Your task to perform on an android device: set the stopwatch Image 0: 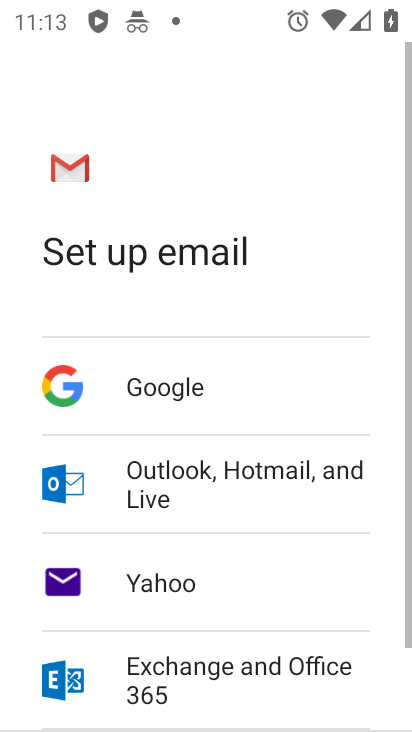
Step 0: press back button
Your task to perform on an android device: set the stopwatch Image 1: 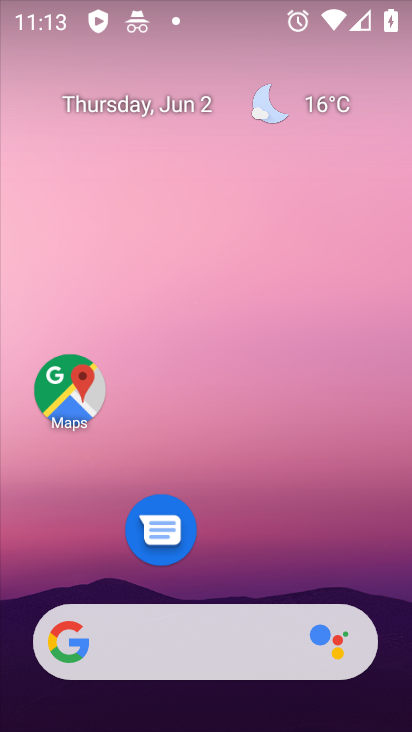
Step 1: drag from (309, 686) to (150, 100)
Your task to perform on an android device: set the stopwatch Image 2: 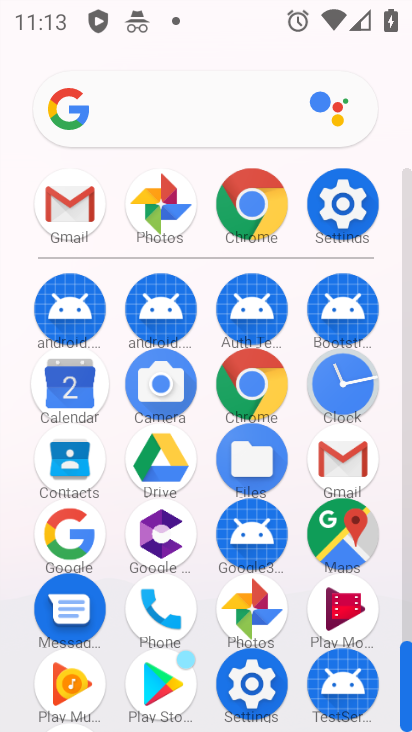
Step 2: click (338, 391)
Your task to perform on an android device: set the stopwatch Image 3: 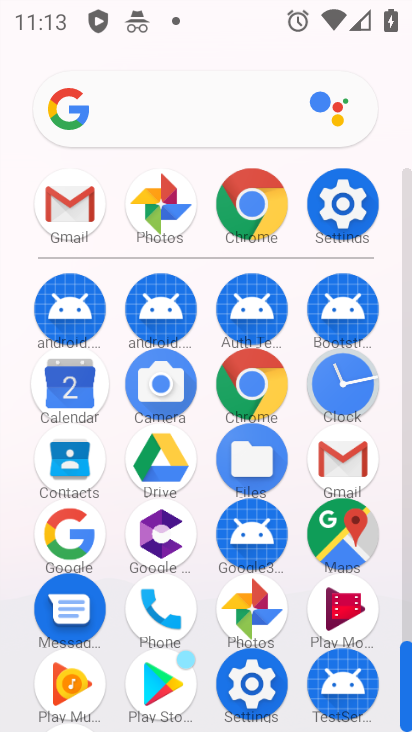
Step 3: click (335, 393)
Your task to perform on an android device: set the stopwatch Image 4: 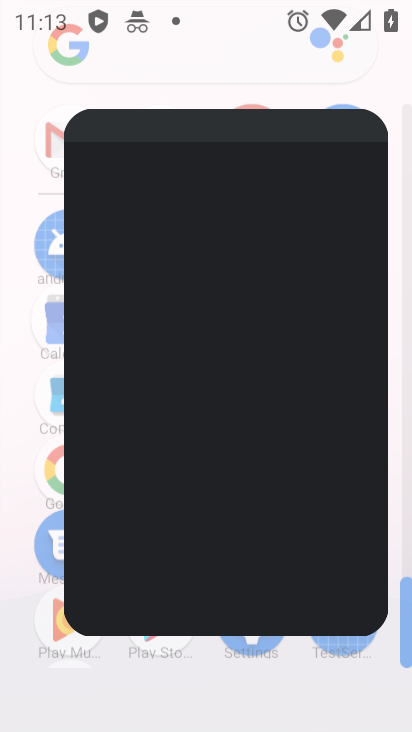
Step 4: click (335, 393)
Your task to perform on an android device: set the stopwatch Image 5: 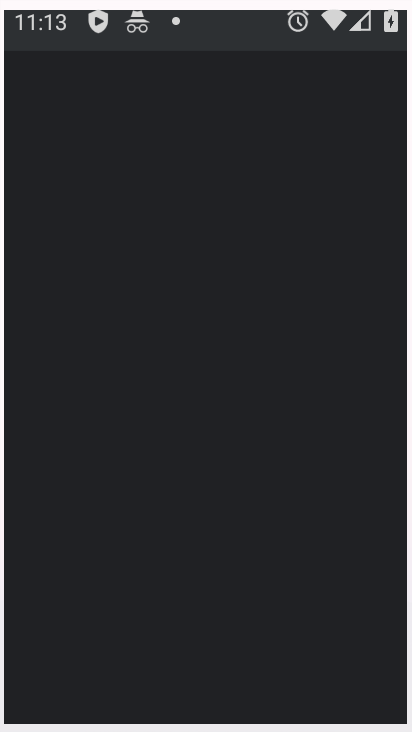
Step 5: click (335, 393)
Your task to perform on an android device: set the stopwatch Image 6: 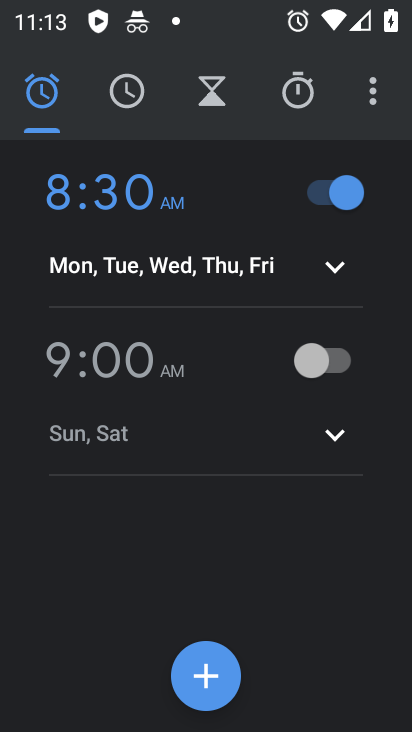
Step 6: click (309, 95)
Your task to perform on an android device: set the stopwatch Image 7: 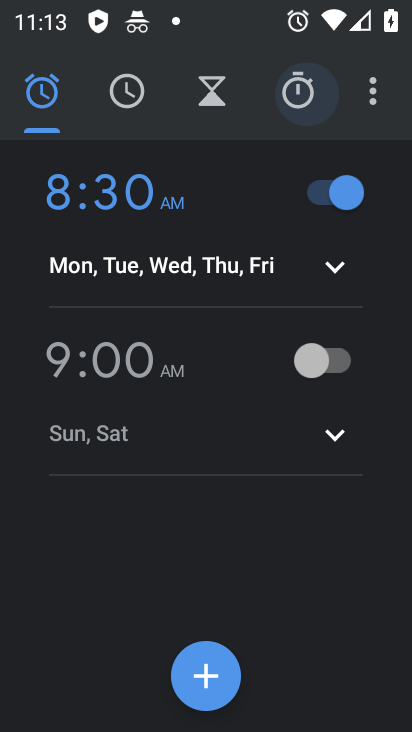
Step 7: click (309, 95)
Your task to perform on an android device: set the stopwatch Image 8: 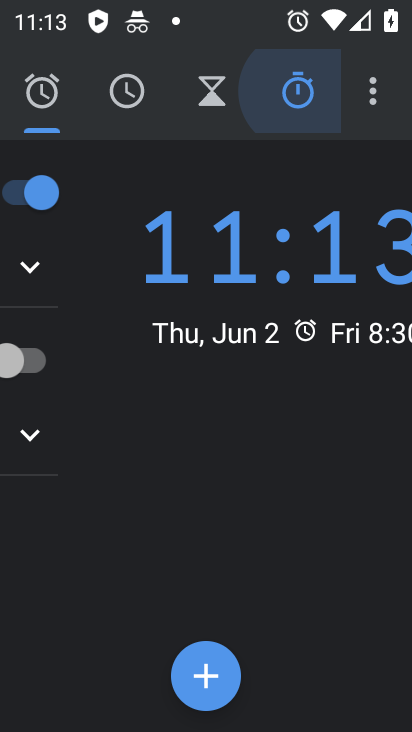
Step 8: click (309, 95)
Your task to perform on an android device: set the stopwatch Image 9: 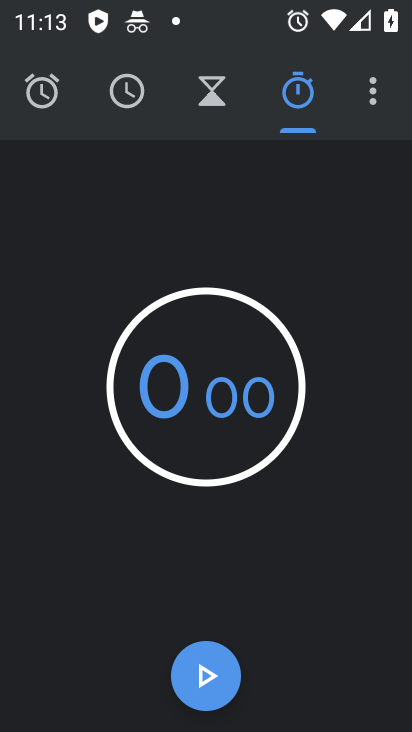
Step 9: click (203, 668)
Your task to perform on an android device: set the stopwatch Image 10: 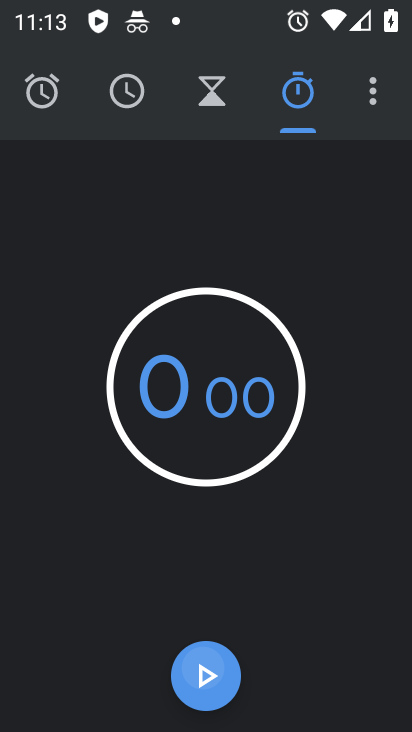
Step 10: click (203, 668)
Your task to perform on an android device: set the stopwatch Image 11: 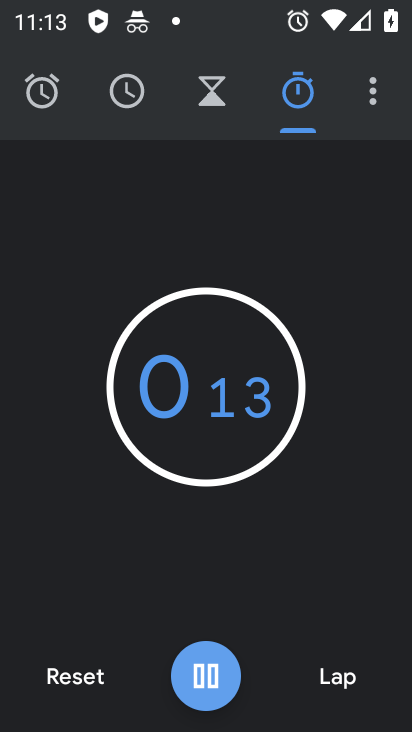
Step 11: click (202, 670)
Your task to perform on an android device: set the stopwatch Image 12: 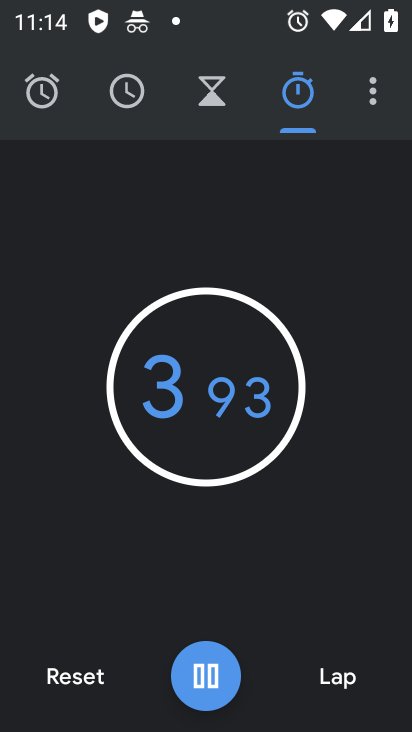
Step 12: click (210, 671)
Your task to perform on an android device: set the stopwatch Image 13: 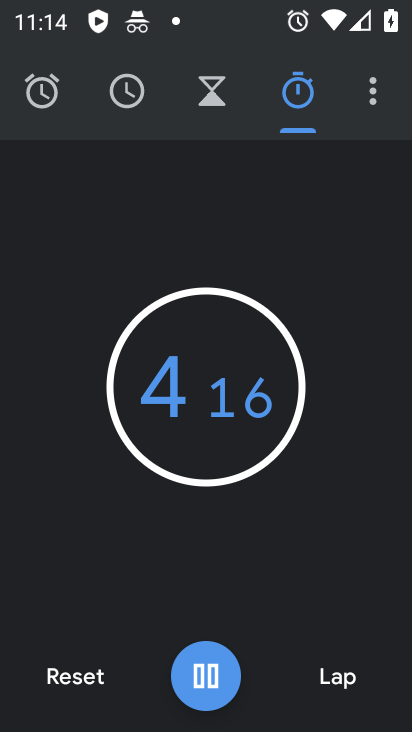
Step 13: click (210, 671)
Your task to perform on an android device: set the stopwatch Image 14: 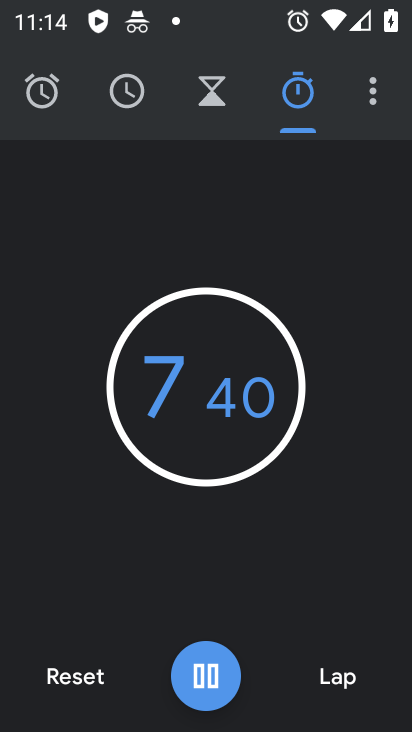
Step 14: click (193, 677)
Your task to perform on an android device: set the stopwatch Image 15: 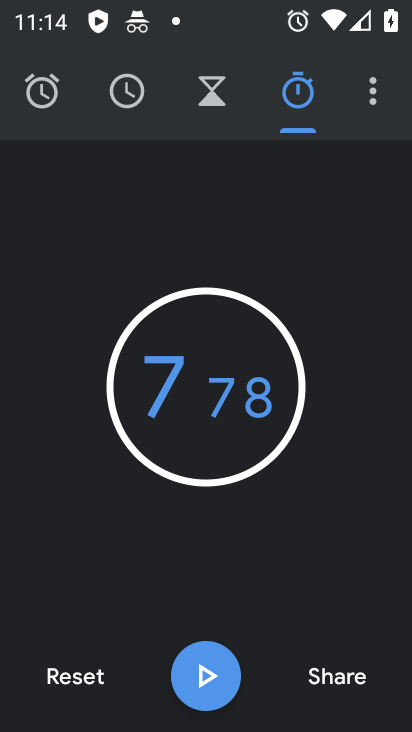
Step 15: click (201, 682)
Your task to perform on an android device: set the stopwatch Image 16: 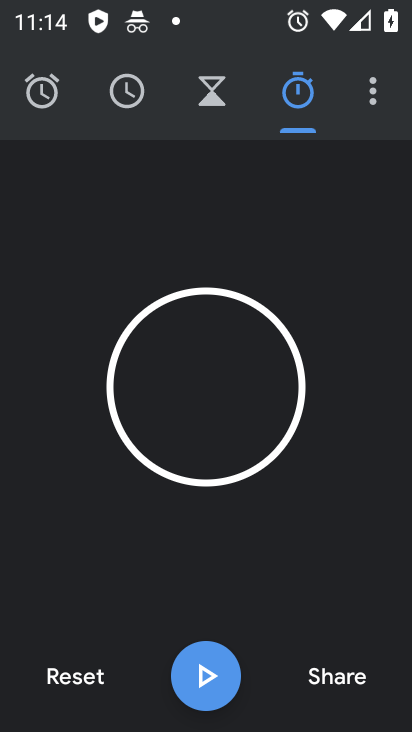
Step 16: click (201, 681)
Your task to perform on an android device: set the stopwatch Image 17: 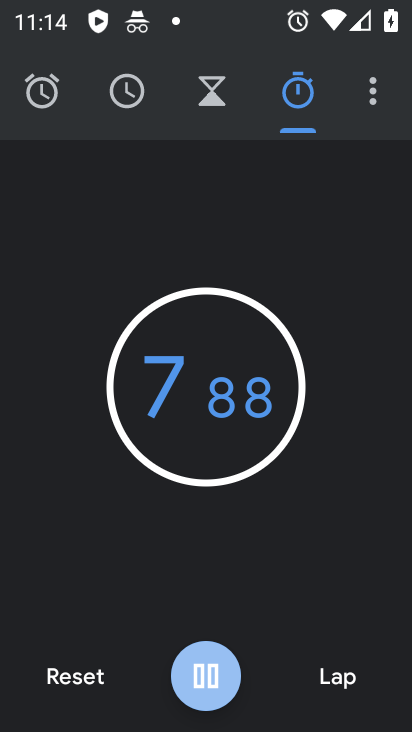
Step 17: click (200, 677)
Your task to perform on an android device: set the stopwatch Image 18: 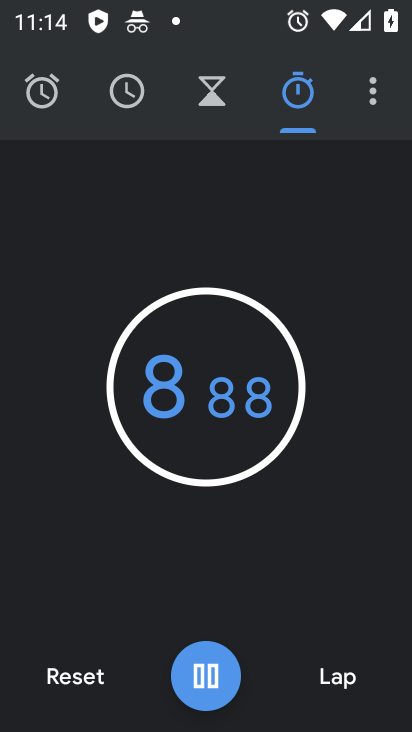
Step 18: click (191, 651)
Your task to perform on an android device: set the stopwatch Image 19: 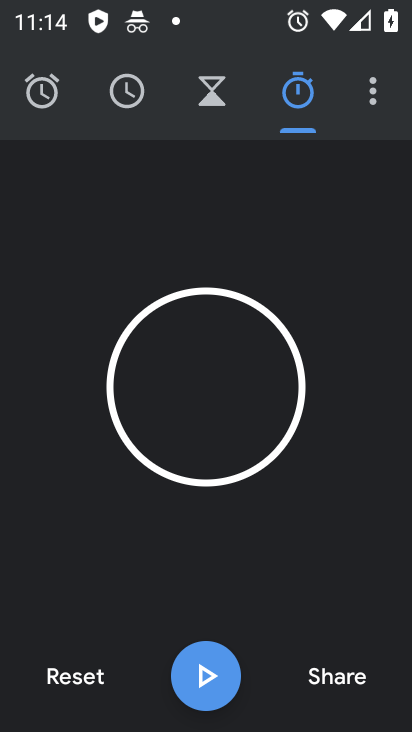
Step 19: task complete